Your task to perform on an android device: Go to Google Image 0: 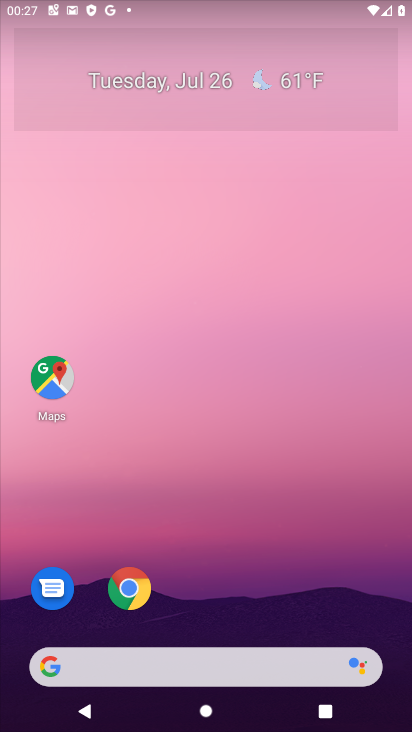
Step 0: drag from (198, 632) to (200, 53)
Your task to perform on an android device: Go to Google Image 1: 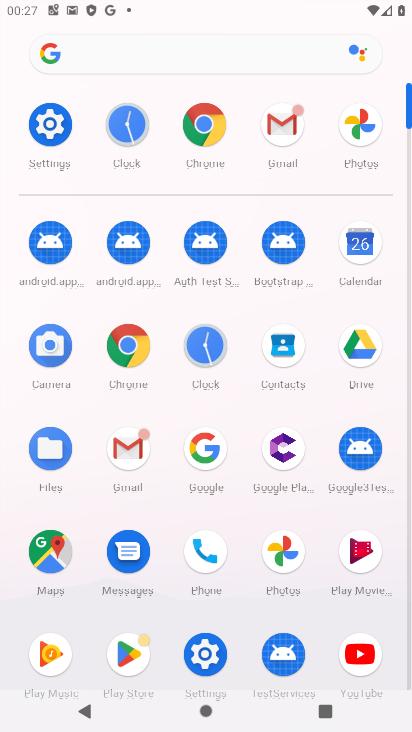
Step 1: click (202, 439)
Your task to perform on an android device: Go to Google Image 2: 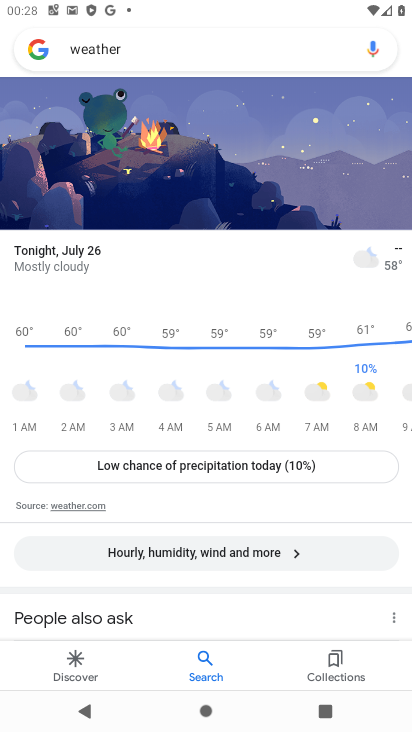
Step 2: drag from (219, 527) to (242, 109)
Your task to perform on an android device: Go to Google Image 3: 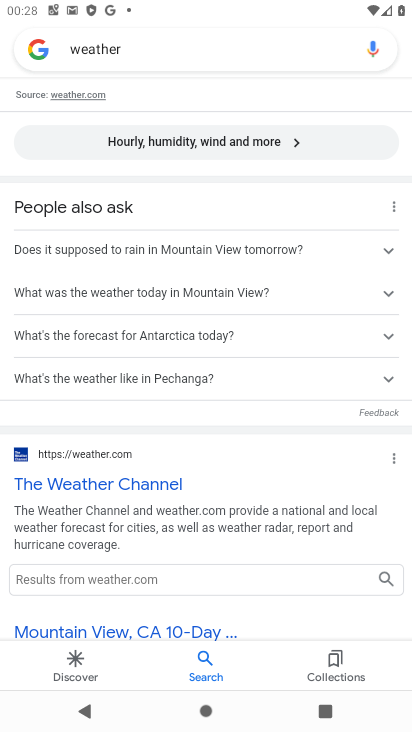
Step 3: click (69, 655)
Your task to perform on an android device: Go to Google Image 4: 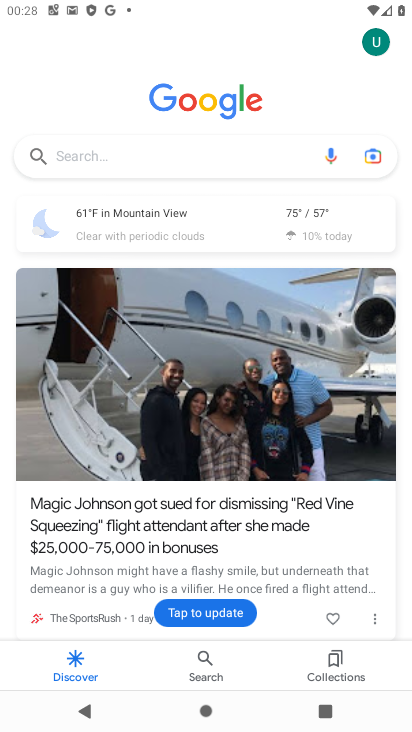
Step 4: drag from (299, 540) to (312, 203)
Your task to perform on an android device: Go to Google Image 5: 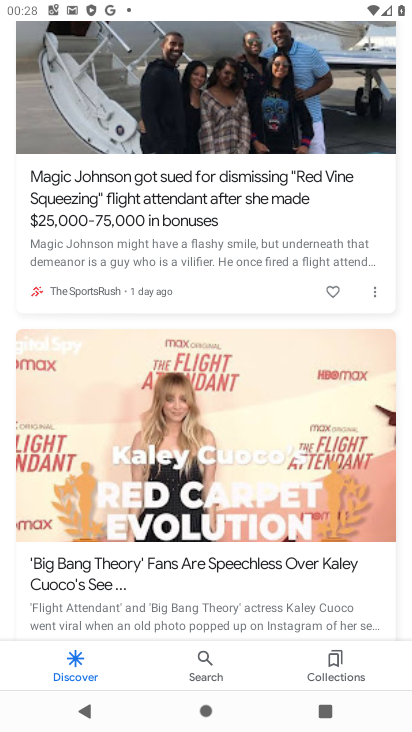
Step 5: click (321, 662)
Your task to perform on an android device: Go to Google Image 6: 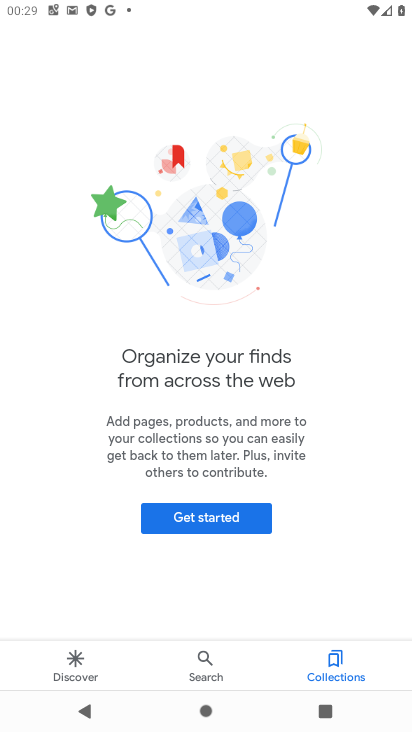
Step 6: task complete